Your task to perform on an android device: turn off location history Image 0: 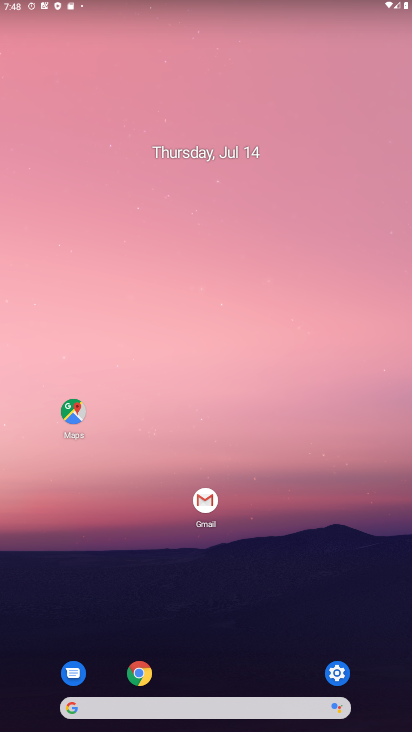
Step 0: click (331, 667)
Your task to perform on an android device: turn off location history Image 1: 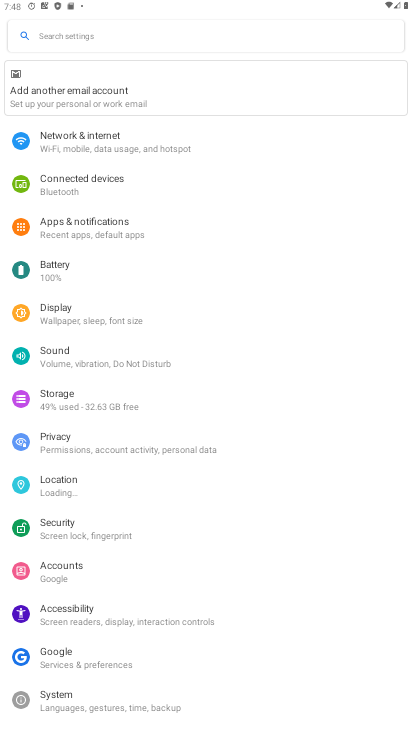
Step 1: click (82, 481)
Your task to perform on an android device: turn off location history Image 2: 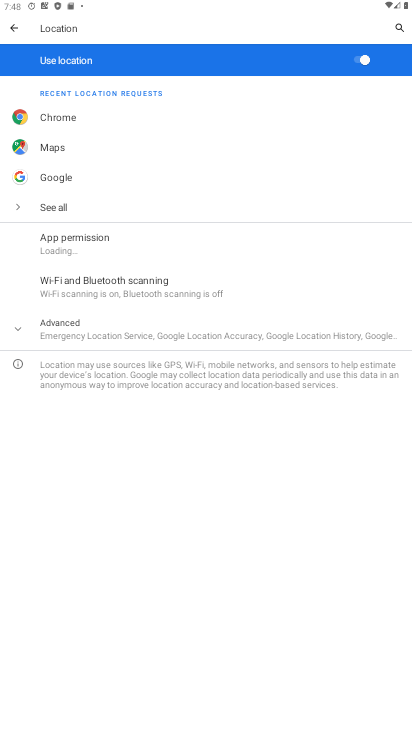
Step 2: click (360, 61)
Your task to perform on an android device: turn off location history Image 3: 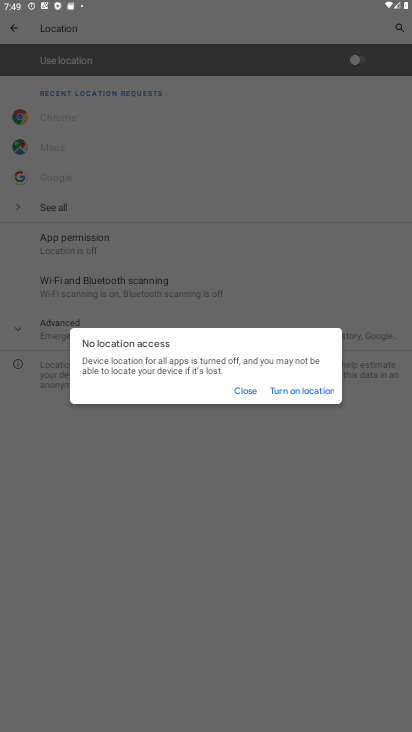
Step 3: task complete